Your task to perform on an android device: snooze an email in the gmail app Image 0: 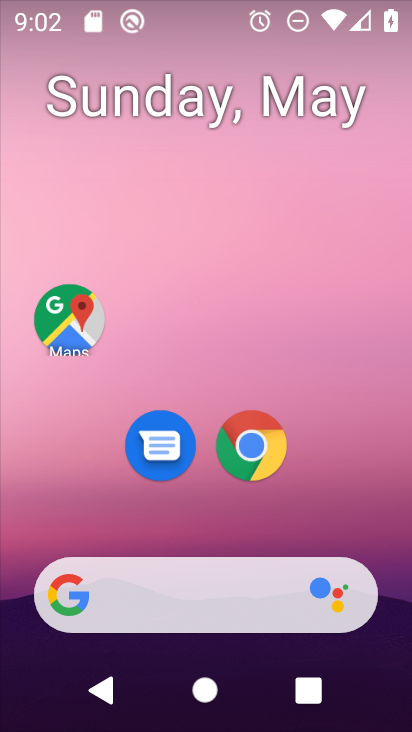
Step 0: drag from (266, 567) to (228, 158)
Your task to perform on an android device: snooze an email in the gmail app Image 1: 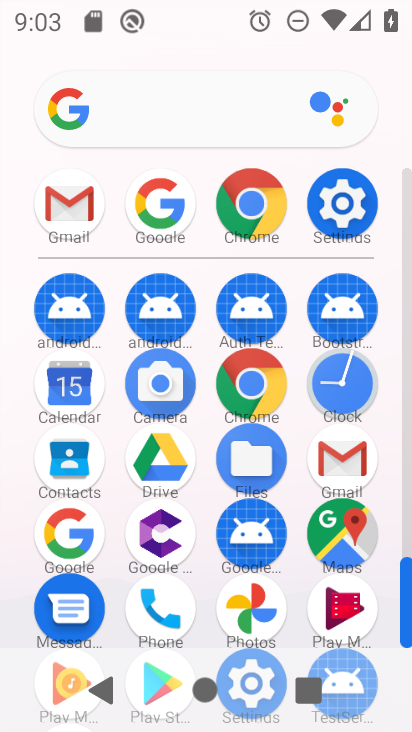
Step 1: click (345, 461)
Your task to perform on an android device: snooze an email in the gmail app Image 2: 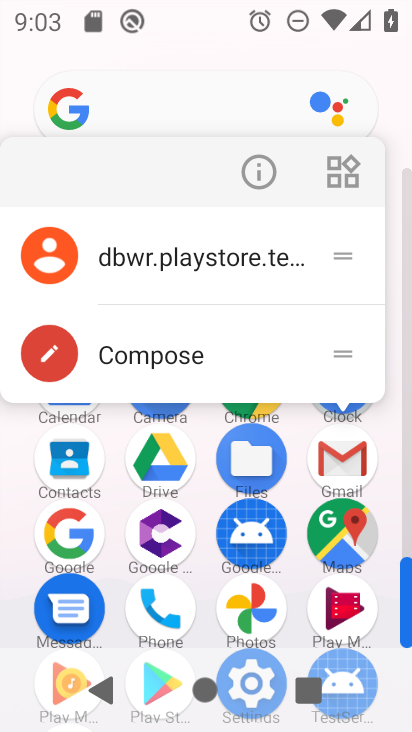
Step 2: click (340, 438)
Your task to perform on an android device: snooze an email in the gmail app Image 3: 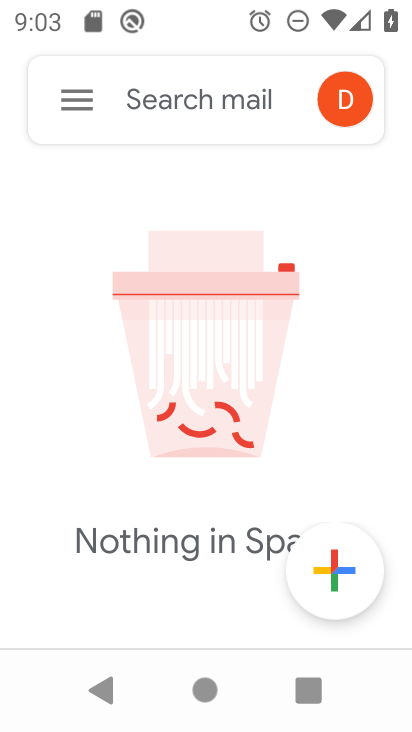
Step 3: click (73, 90)
Your task to perform on an android device: snooze an email in the gmail app Image 4: 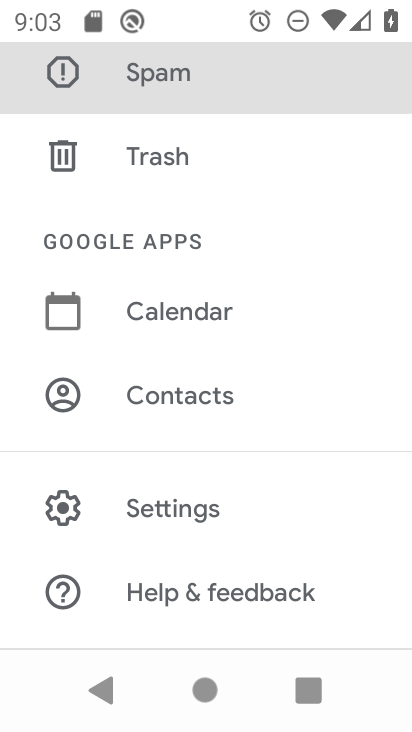
Step 4: drag from (197, 292) to (198, 585)
Your task to perform on an android device: snooze an email in the gmail app Image 5: 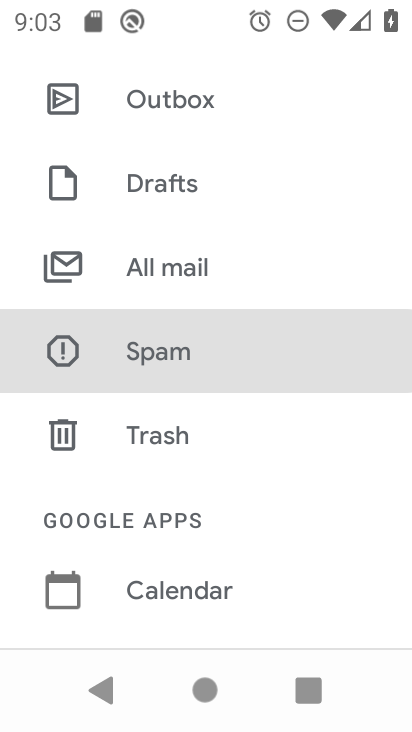
Step 5: click (198, 273)
Your task to perform on an android device: snooze an email in the gmail app Image 6: 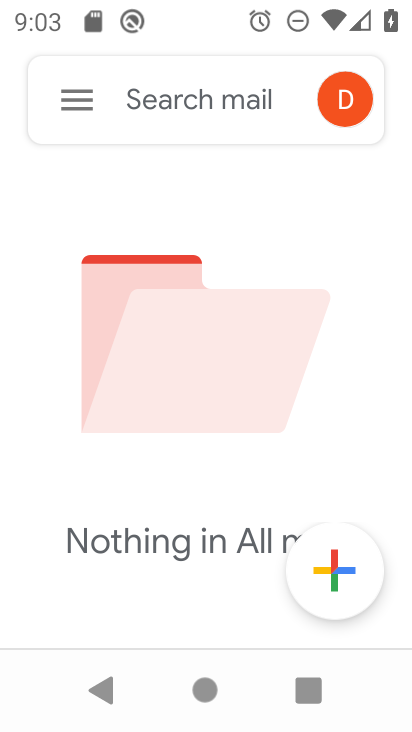
Step 6: task complete